Your task to perform on an android device: Open network settings Image 0: 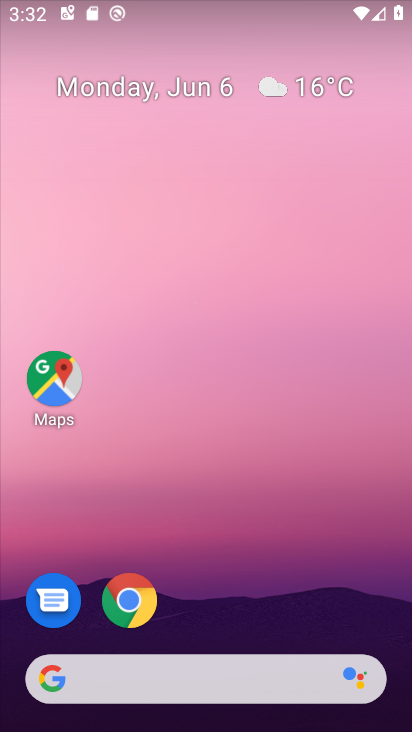
Step 0: click (216, 75)
Your task to perform on an android device: Open network settings Image 1: 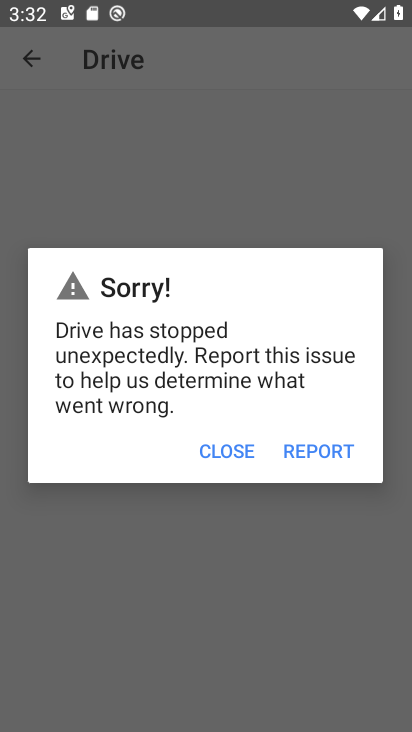
Step 1: click (229, 423)
Your task to perform on an android device: Open network settings Image 2: 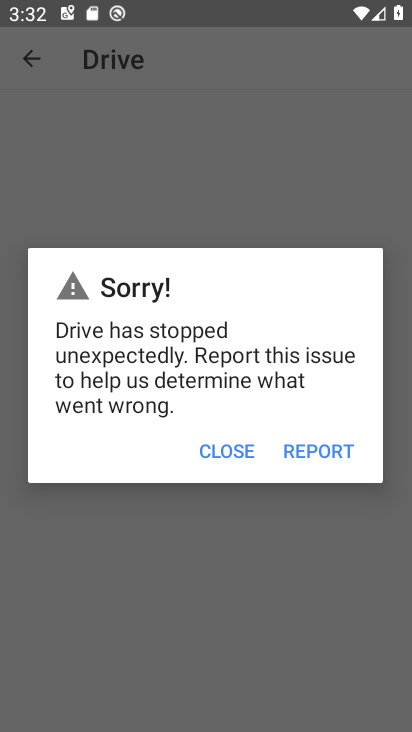
Step 2: click (229, 451)
Your task to perform on an android device: Open network settings Image 3: 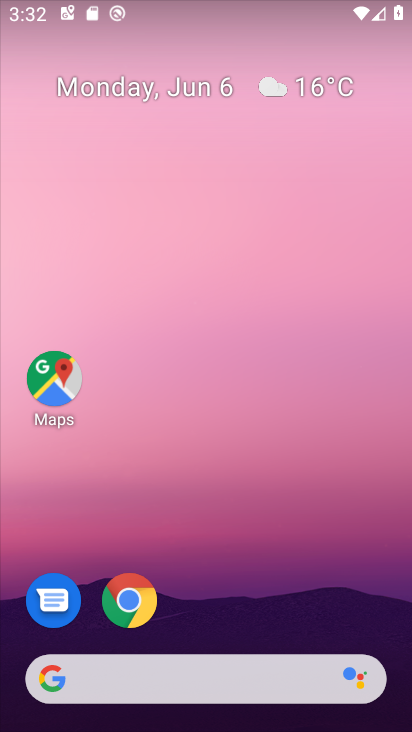
Step 3: drag from (180, 291) to (136, 5)
Your task to perform on an android device: Open network settings Image 4: 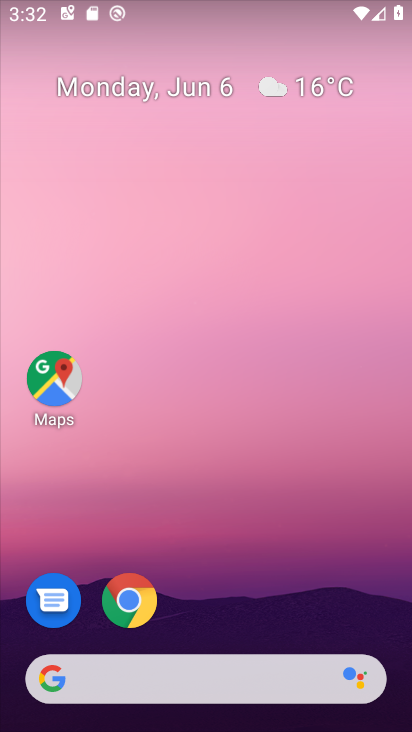
Step 4: drag from (233, 675) to (227, 116)
Your task to perform on an android device: Open network settings Image 5: 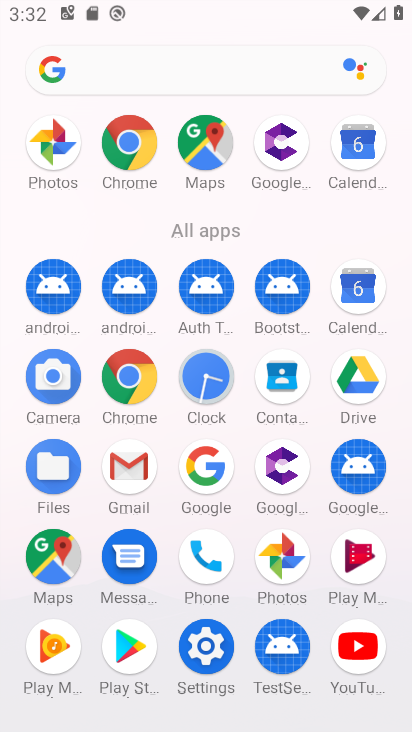
Step 5: click (210, 659)
Your task to perform on an android device: Open network settings Image 6: 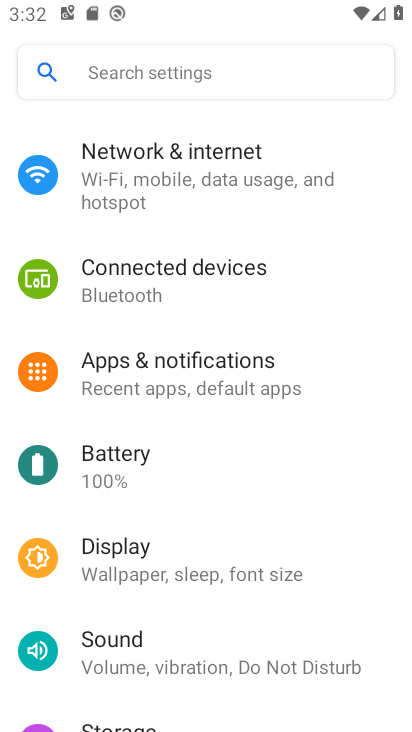
Step 6: click (209, 645)
Your task to perform on an android device: Open network settings Image 7: 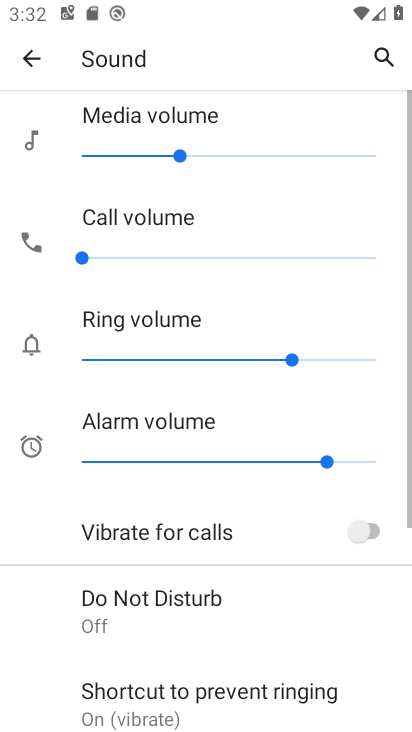
Step 7: click (28, 61)
Your task to perform on an android device: Open network settings Image 8: 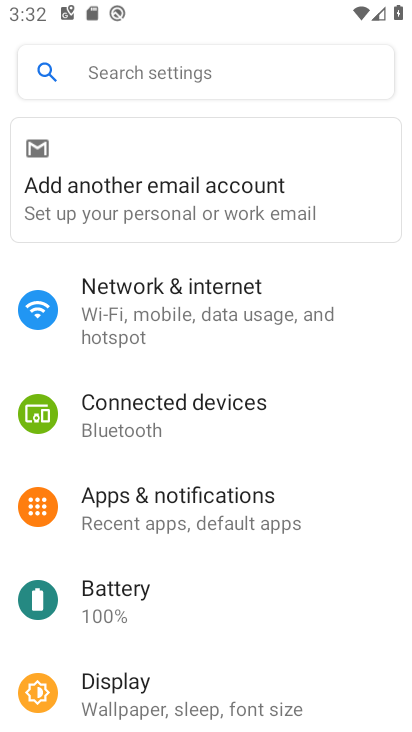
Step 8: click (203, 304)
Your task to perform on an android device: Open network settings Image 9: 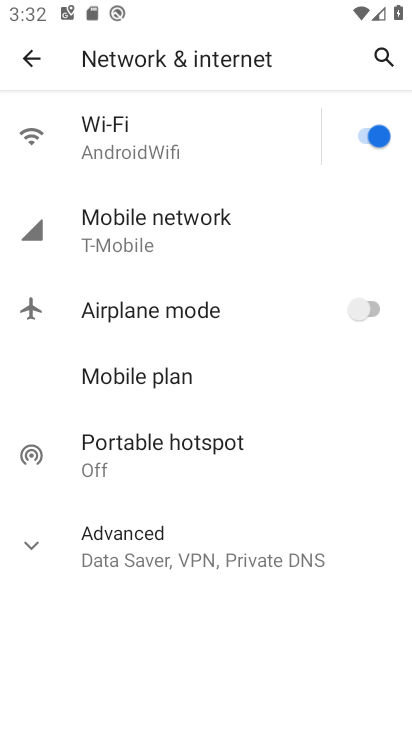
Step 9: task complete